Your task to perform on an android device: turn on data saver in the chrome app Image 0: 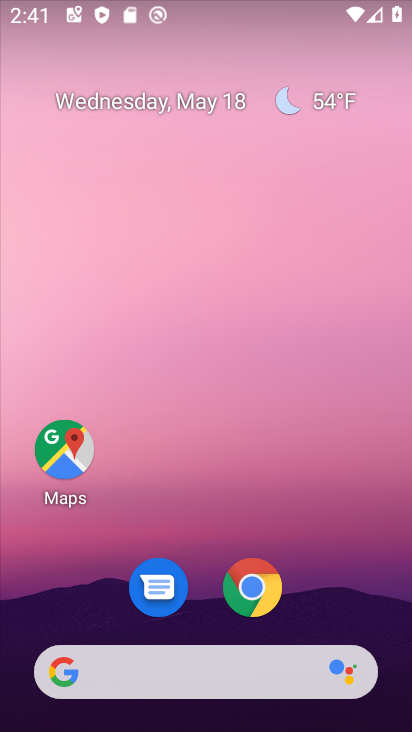
Step 0: drag from (225, 593) to (358, 19)
Your task to perform on an android device: turn on data saver in the chrome app Image 1: 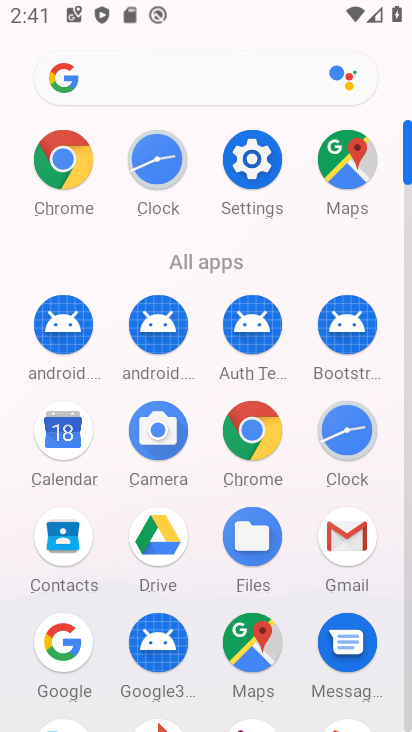
Step 1: click (254, 444)
Your task to perform on an android device: turn on data saver in the chrome app Image 2: 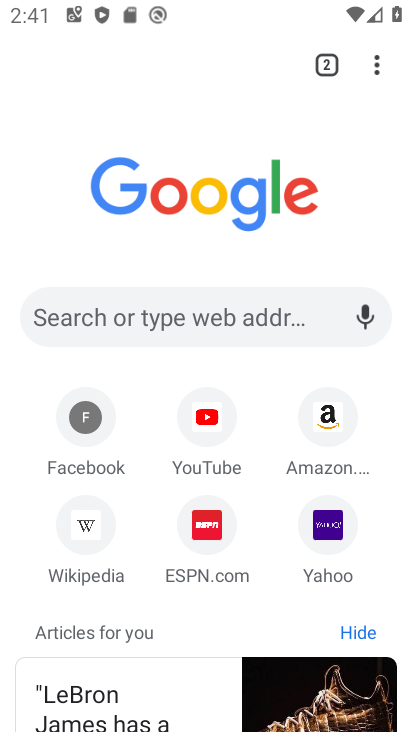
Step 2: click (383, 72)
Your task to perform on an android device: turn on data saver in the chrome app Image 3: 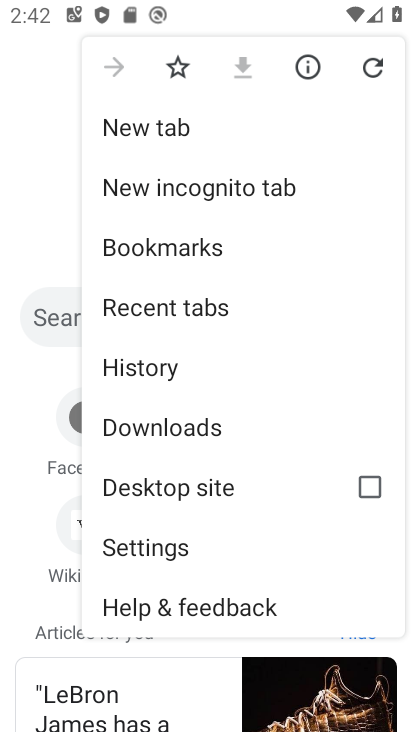
Step 3: drag from (242, 549) to (242, 78)
Your task to perform on an android device: turn on data saver in the chrome app Image 4: 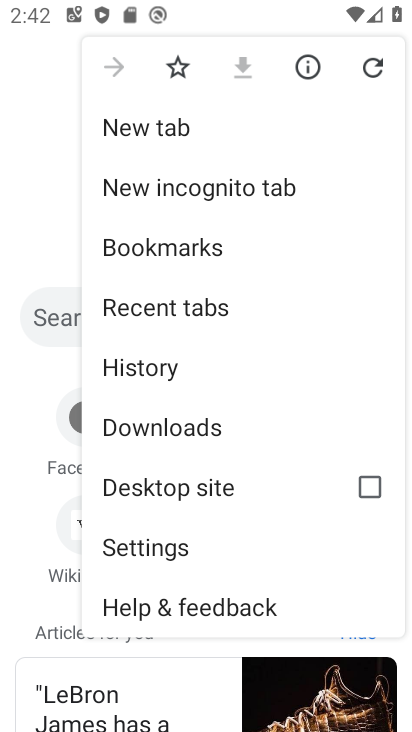
Step 4: click (172, 556)
Your task to perform on an android device: turn on data saver in the chrome app Image 5: 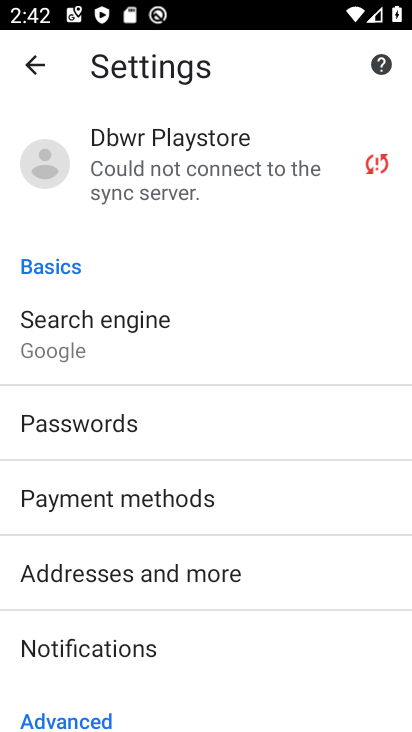
Step 5: drag from (175, 649) to (170, 4)
Your task to perform on an android device: turn on data saver in the chrome app Image 6: 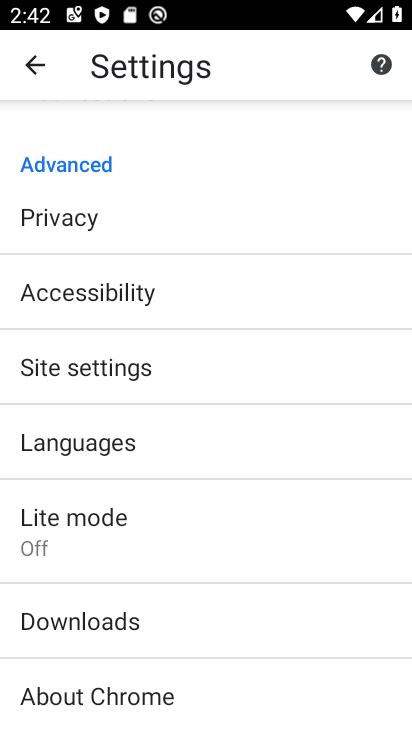
Step 6: drag from (154, 645) to (224, 61)
Your task to perform on an android device: turn on data saver in the chrome app Image 7: 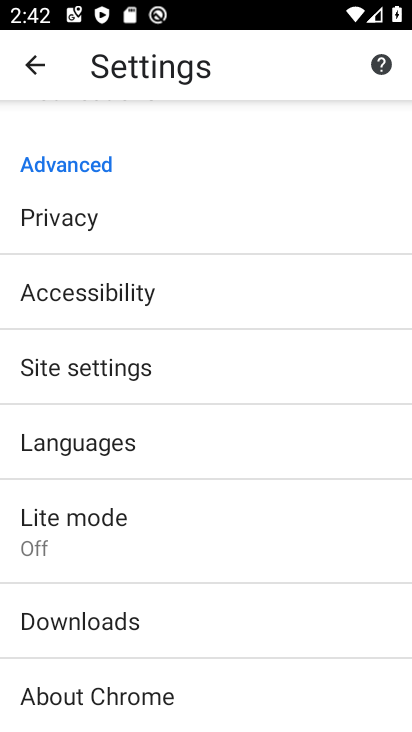
Step 7: click (117, 542)
Your task to perform on an android device: turn on data saver in the chrome app Image 8: 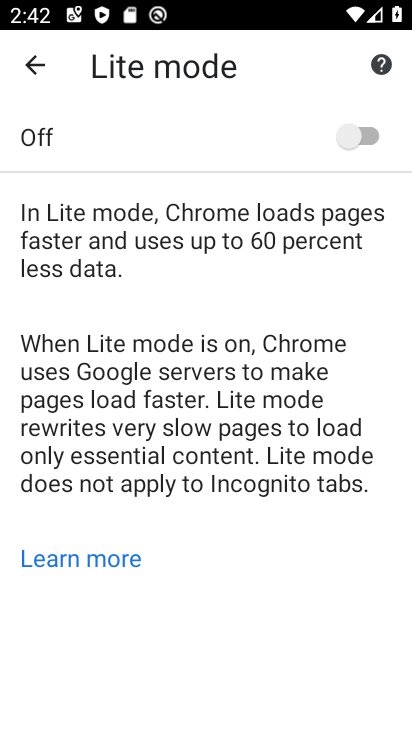
Step 8: click (348, 124)
Your task to perform on an android device: turn on data saver in the chrome app Image 9: 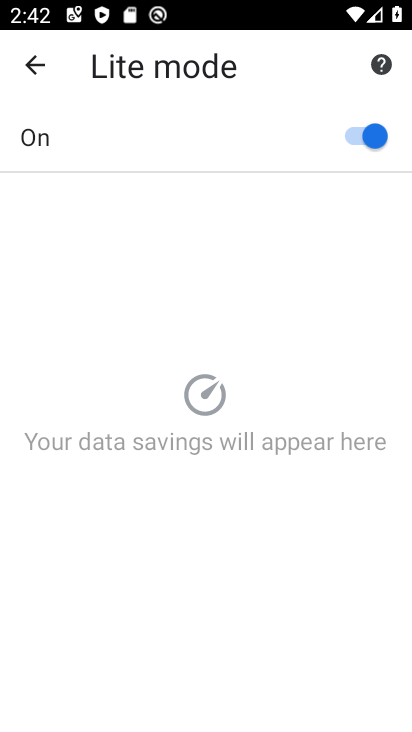
Step 9: task complete